Your task to perform on an android device: Search for vegetarian restaurants on Maps Image 0: 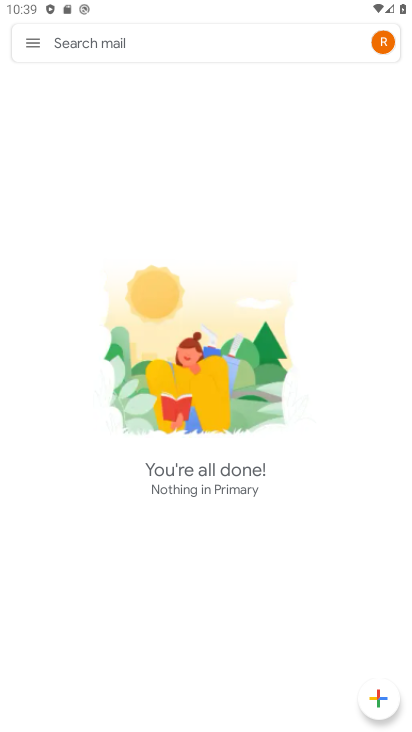
Step 0: press home button
Your task to perform on an android device: Search for vegetarian restaurants on Maps Image 1: 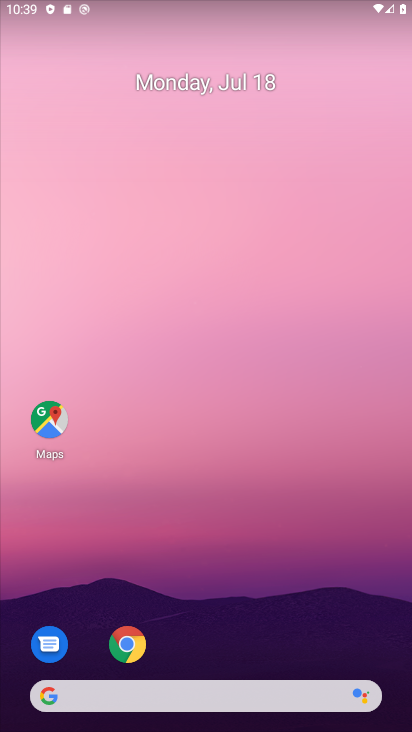
Step 1: drag from (201, 657) to (227, 104)
Your task to perform on an android device: Search for vegetarian restaurants on Maps Image 2: 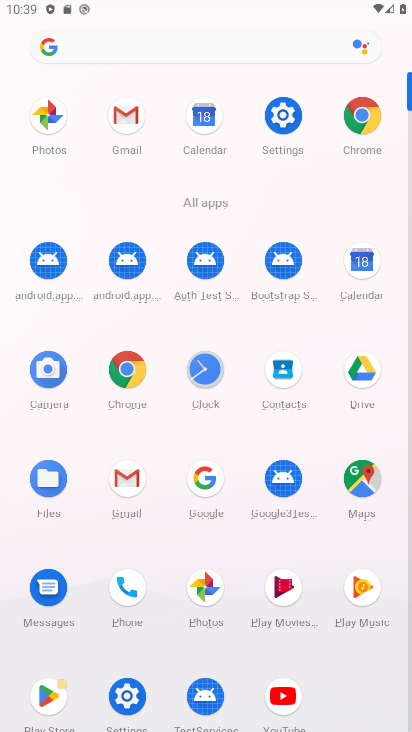
Step 2: click (364, 481)
Your task to perform on an android device: Search for vegetarian restaurants on Maps Image 3: 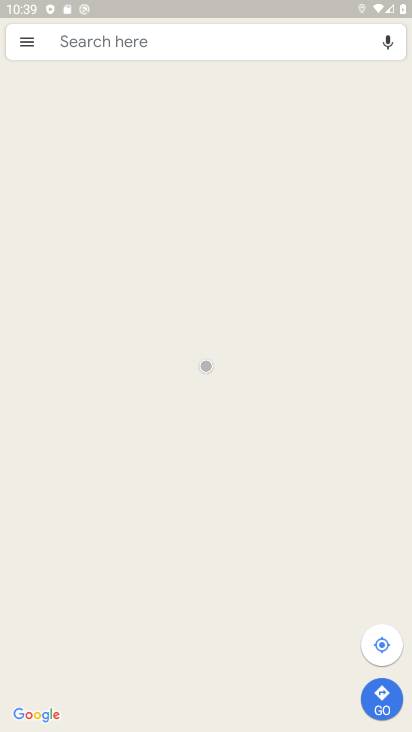
Step 3: click (199, 46)
Your task to perform on an android device: Search for vegetarian restaurants on Maps Image 4: 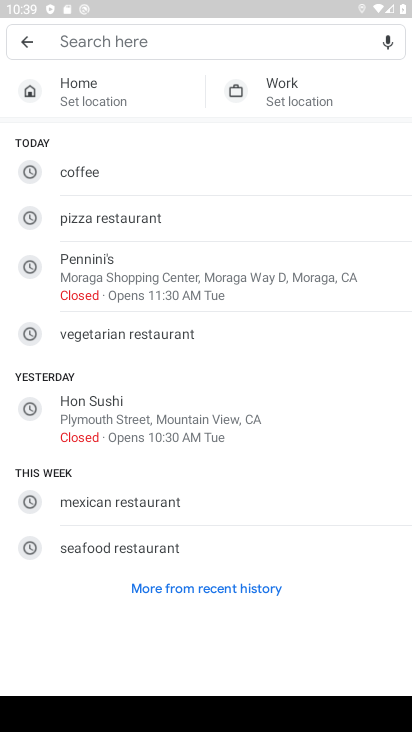
Step 4: type "vegetarian restaurents"
Your task to perform on an android device: Search for vegetarian restaurants on Maps Image 5: 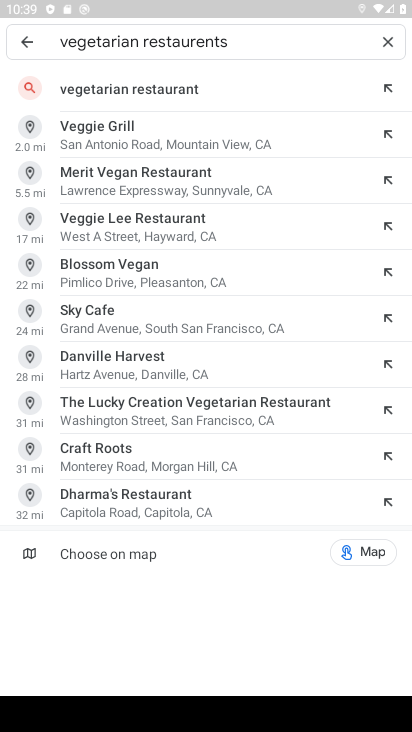
Step 5: click (158, 94)
Your task to perform on an android device: Search for vegetarian restaurants on Maps Image 6: 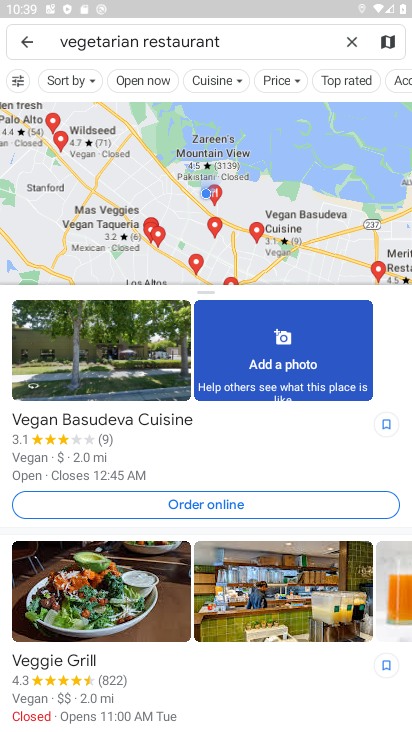
Step 6: task complete